Your task to perform on an android device: Open ESPN.com Image 0: 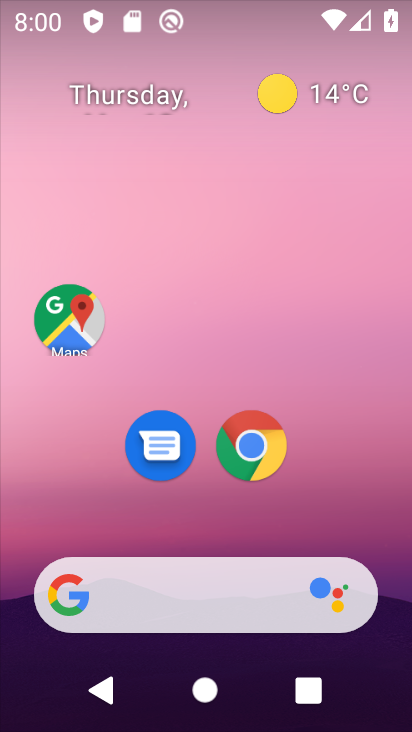
Step 0: click (252, 440)
Your task to perform on an android device: Open ESPN.com Image 1: 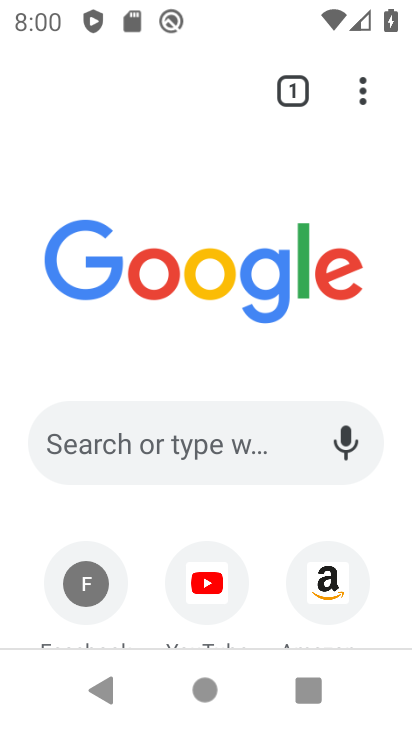
Step 1: click (121, 421)
Your task to perform on an android device: Open ESPN.com Image 2: 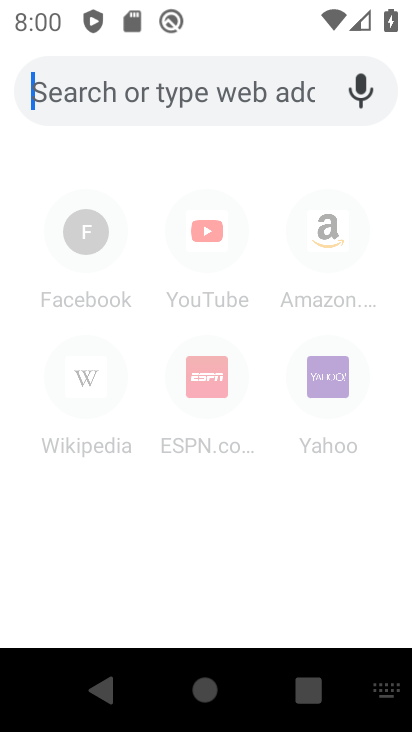
Step 2: type "ESPN.com"
Your task to perform on an android device: Open ESPN.com Image 3: 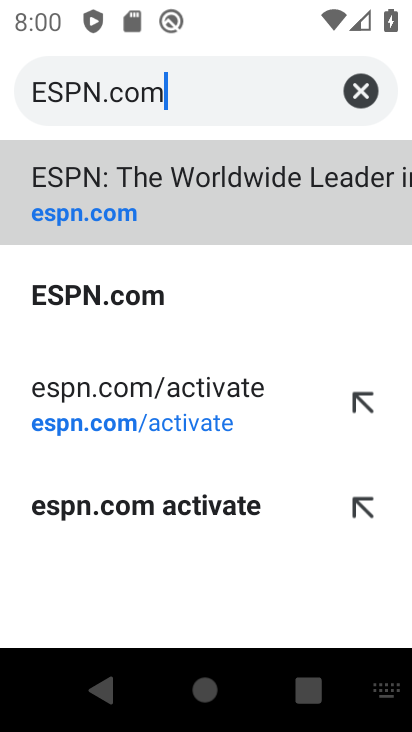
Step 3: click (230, 210)
Your task to perform on an android device: Open ESPN.com Image 4: 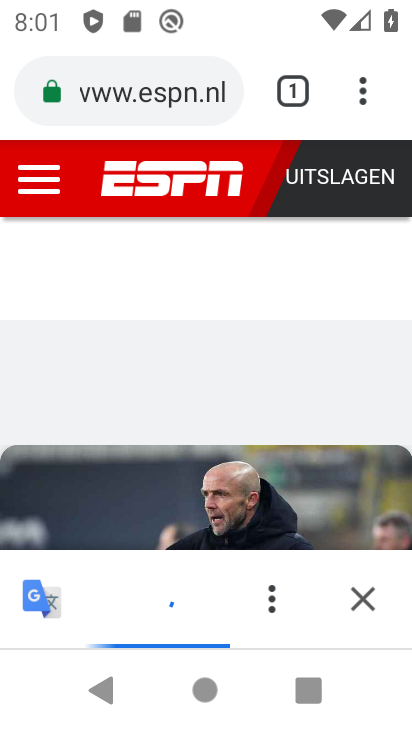
Step 4: task complete